Your task to perform on an android device: Add logitech g933 to the cart on target.com, then select checkout. Image 0: 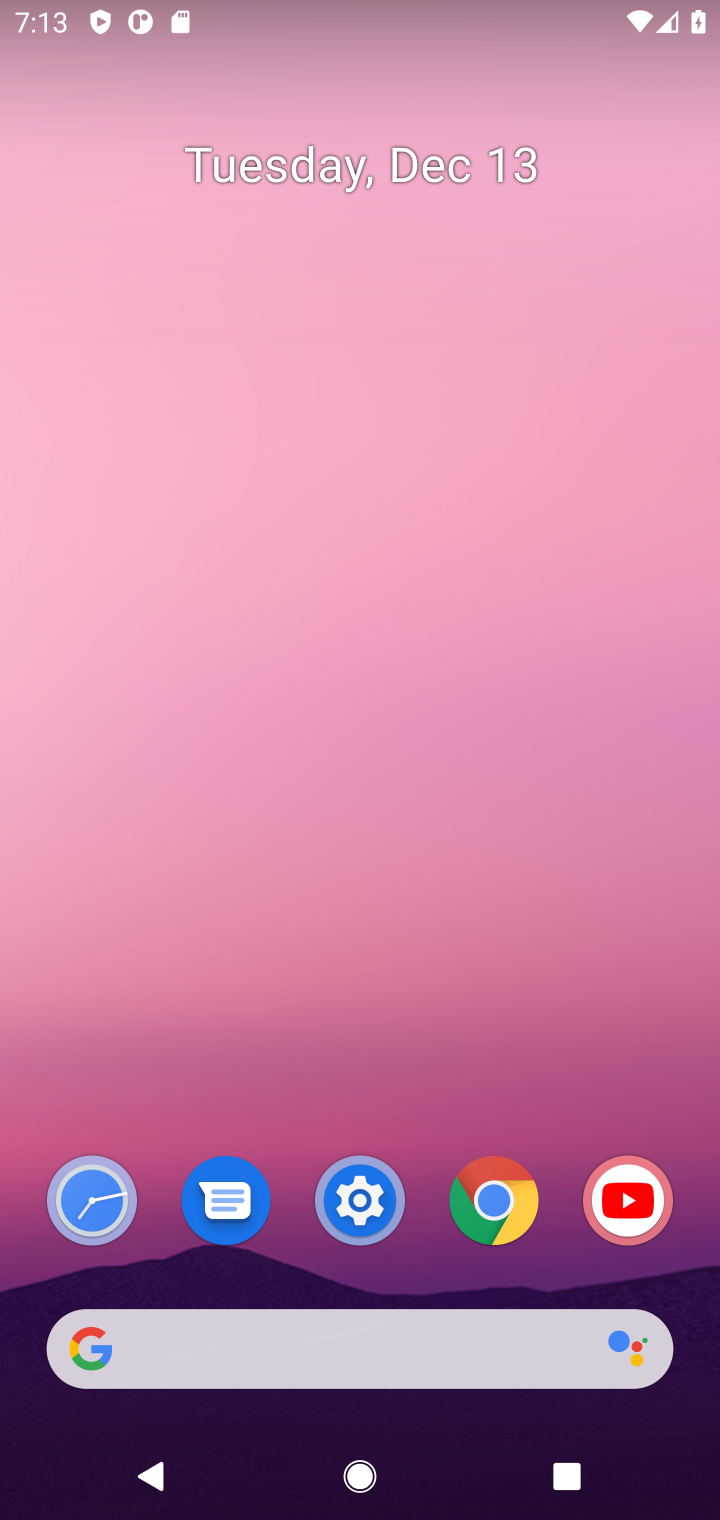
Step 0: click (319, 1345)
Your task to perform on an android device: Add logitech g933 to the cart on target.com, then select checkout. Image 1: 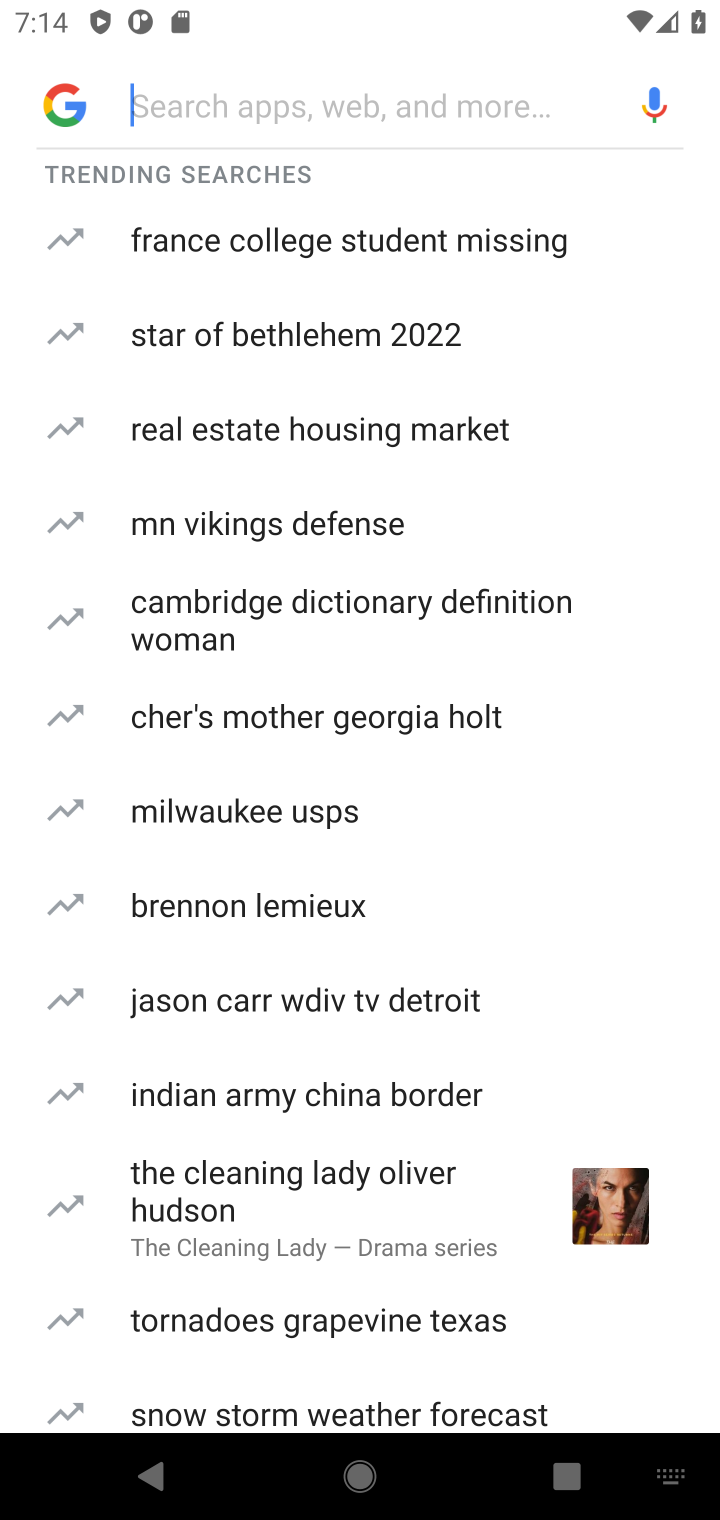
Step 1: type " target.com,"
Your task to perform on an android device: Add logitech g933 to the cart on target.com, then select checkout. Image 2: 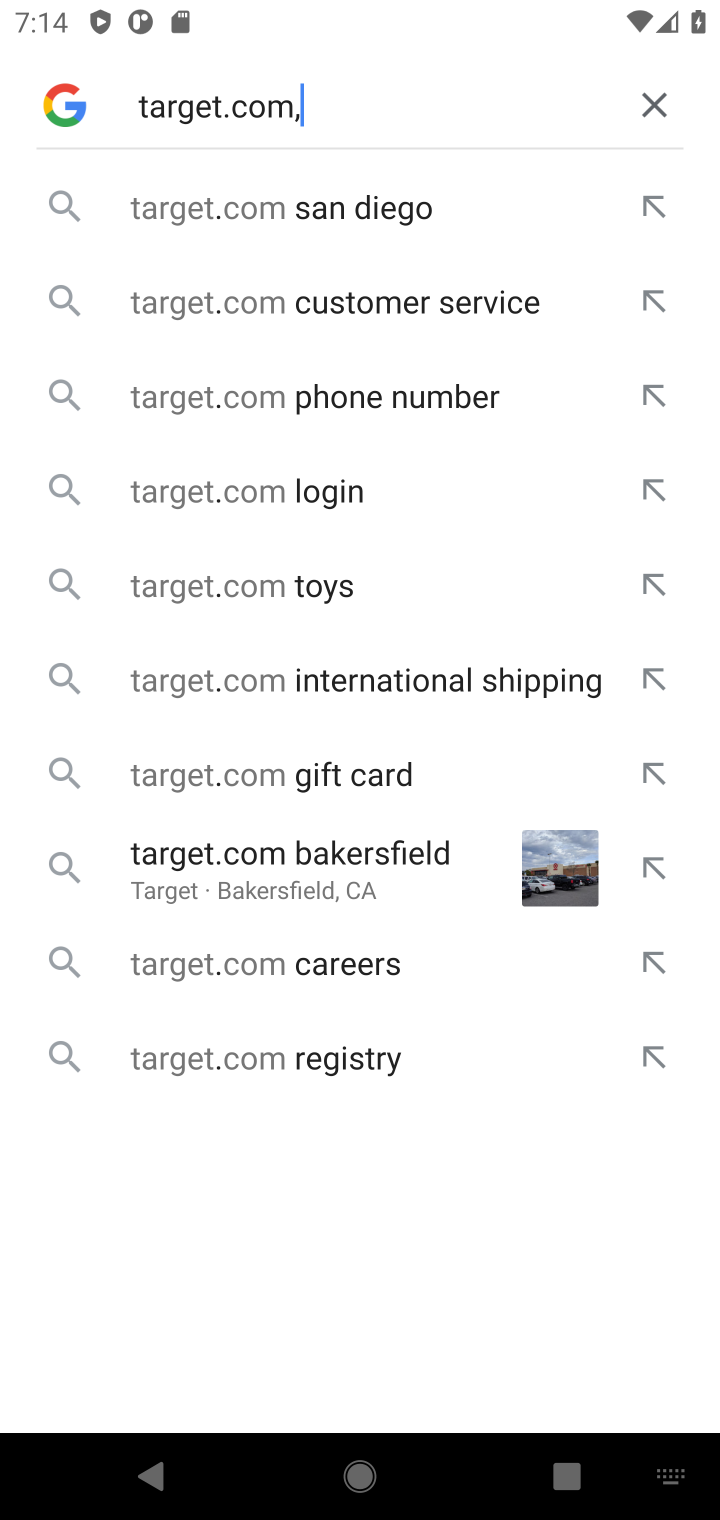
Step 2: click (659, 108)
Your task to perform on an android device: Add logitech g933 to the cart on target.com, then select checkout. Image 3: 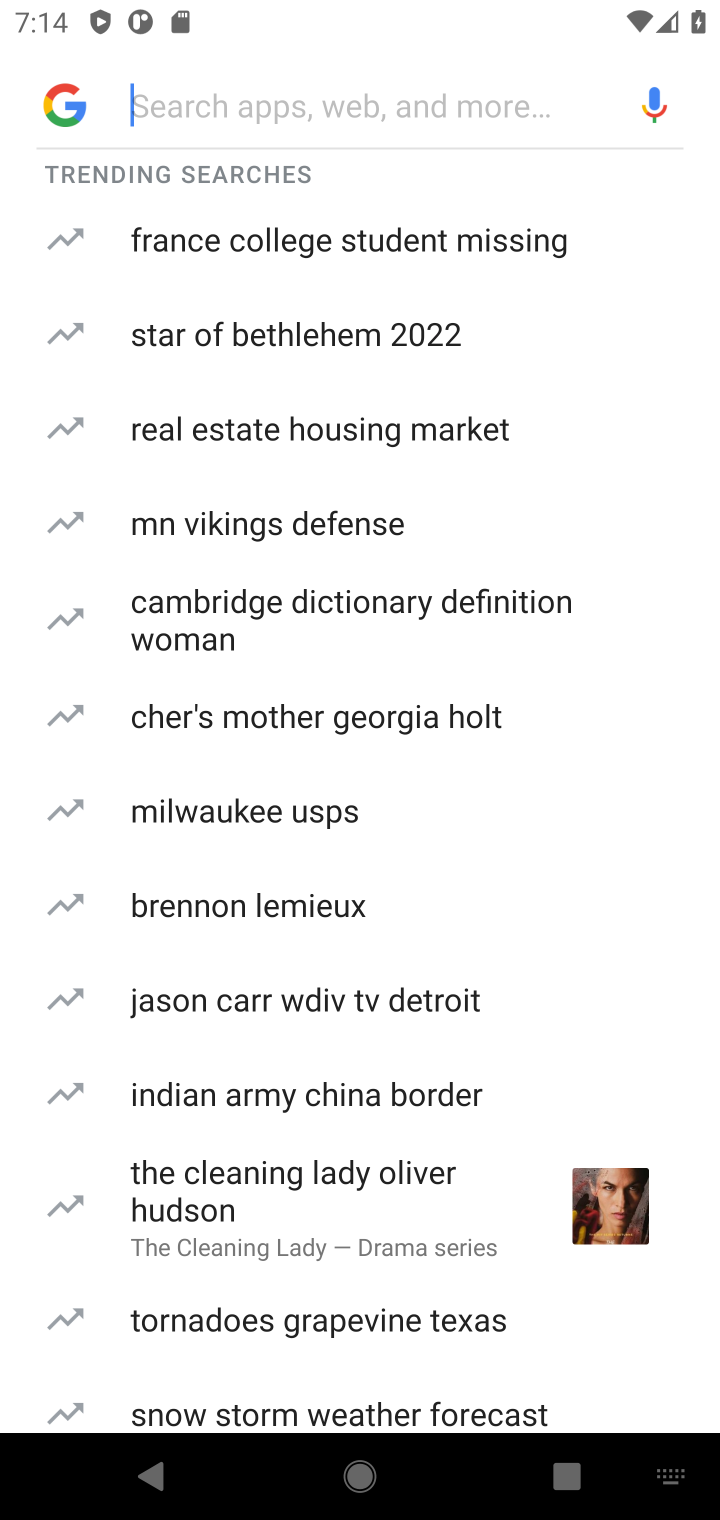
Step 3: type " target.com"
Your task to perform on an android device: Add logitech g933 to the cart on target.com, then select checkout. Image 4: 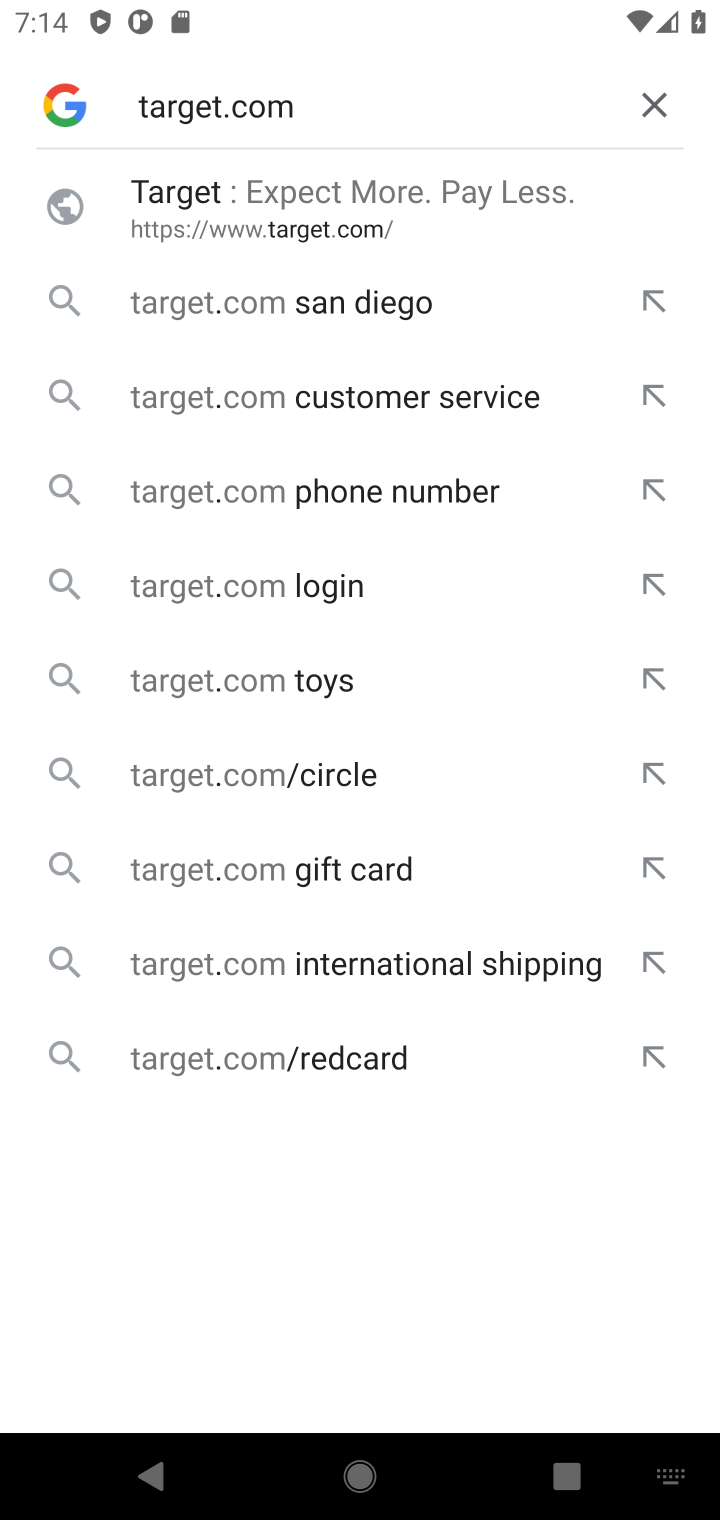
Step 4: click (326, 224)
Your task to perform on an android device: Add logitech g933 to the cart on target.com, then select checkout. Image 5: 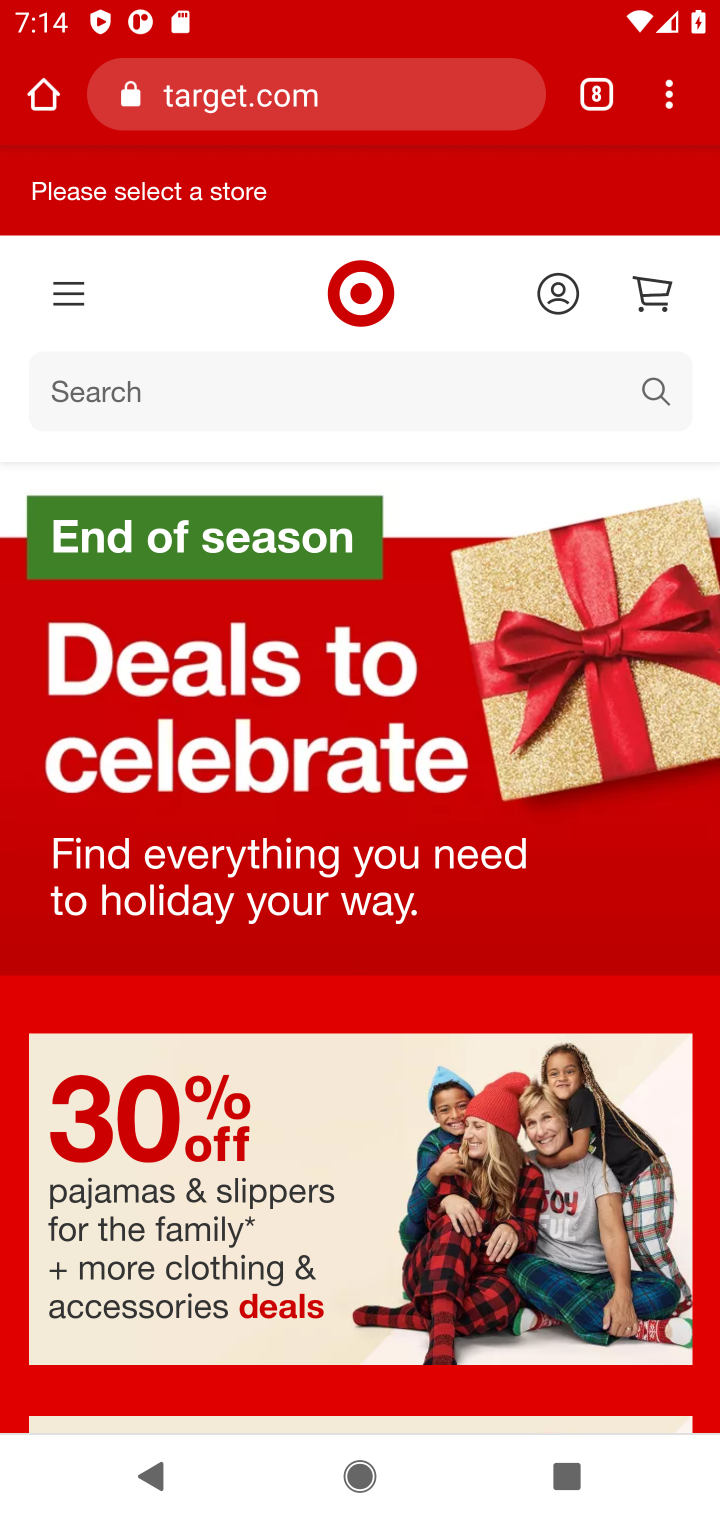
Step 5: click (298, 392)
Your task to perform on an android device: Add logitech g933 to the cart on target.com, then select checkout. Image 6: 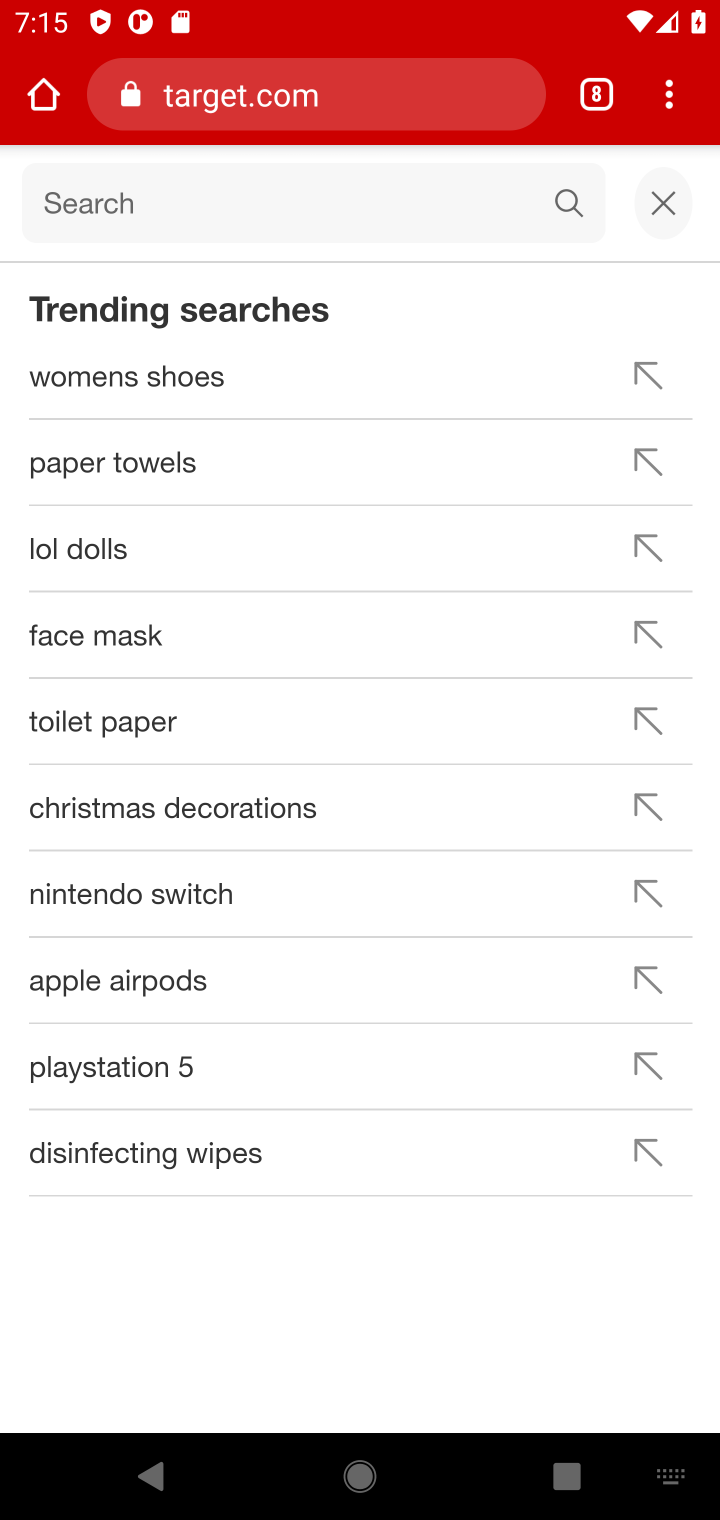
Step 6: type "logitech g933"
Your task to perform on an android device: Add logitech g933 to the cart on target.com, then select checkout. Image 7: 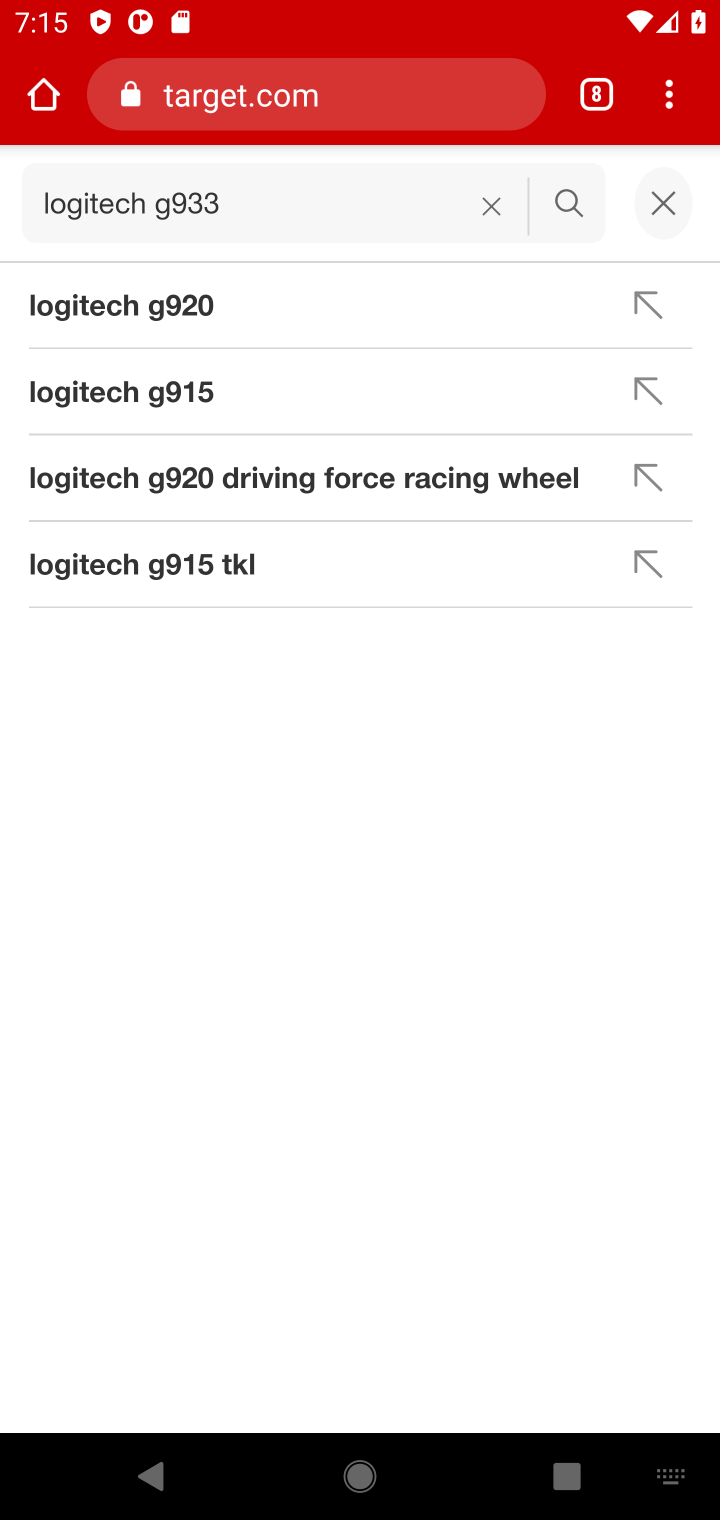
Step 7: click (573, 193)
Your task to perform on an android device: Add logitech g933 to the cart on target.com, then select checkout. Image 8: 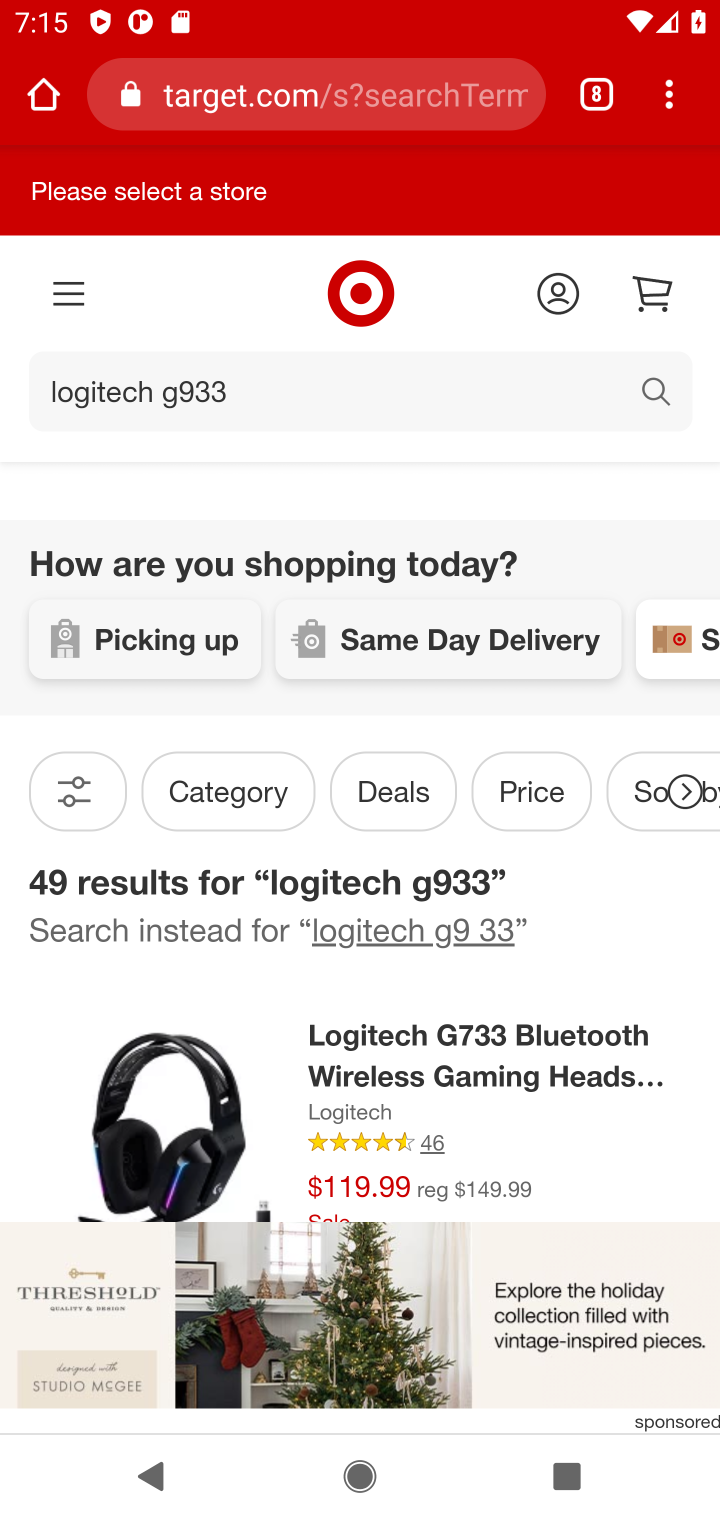
Step 8: drag from (455, 1016) to (455, 764)
Your task to perform on an android device: Add logitech g933 to the cart on target.com, then select checkout. Image 9: 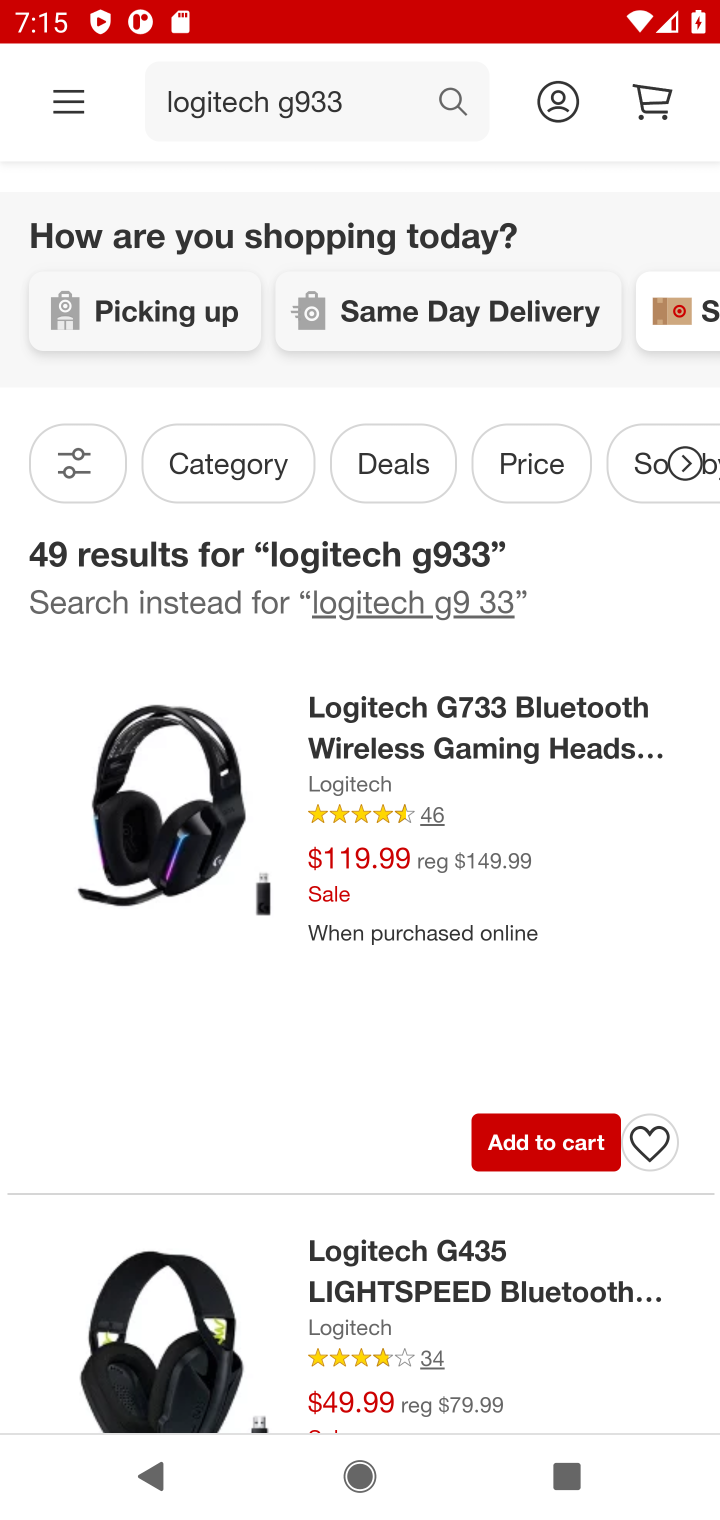
Step 9: click (513, 1141)
Your task to perform on an android device: Add logitech g933 to the cart on target.com, then select checkout. Image 10: 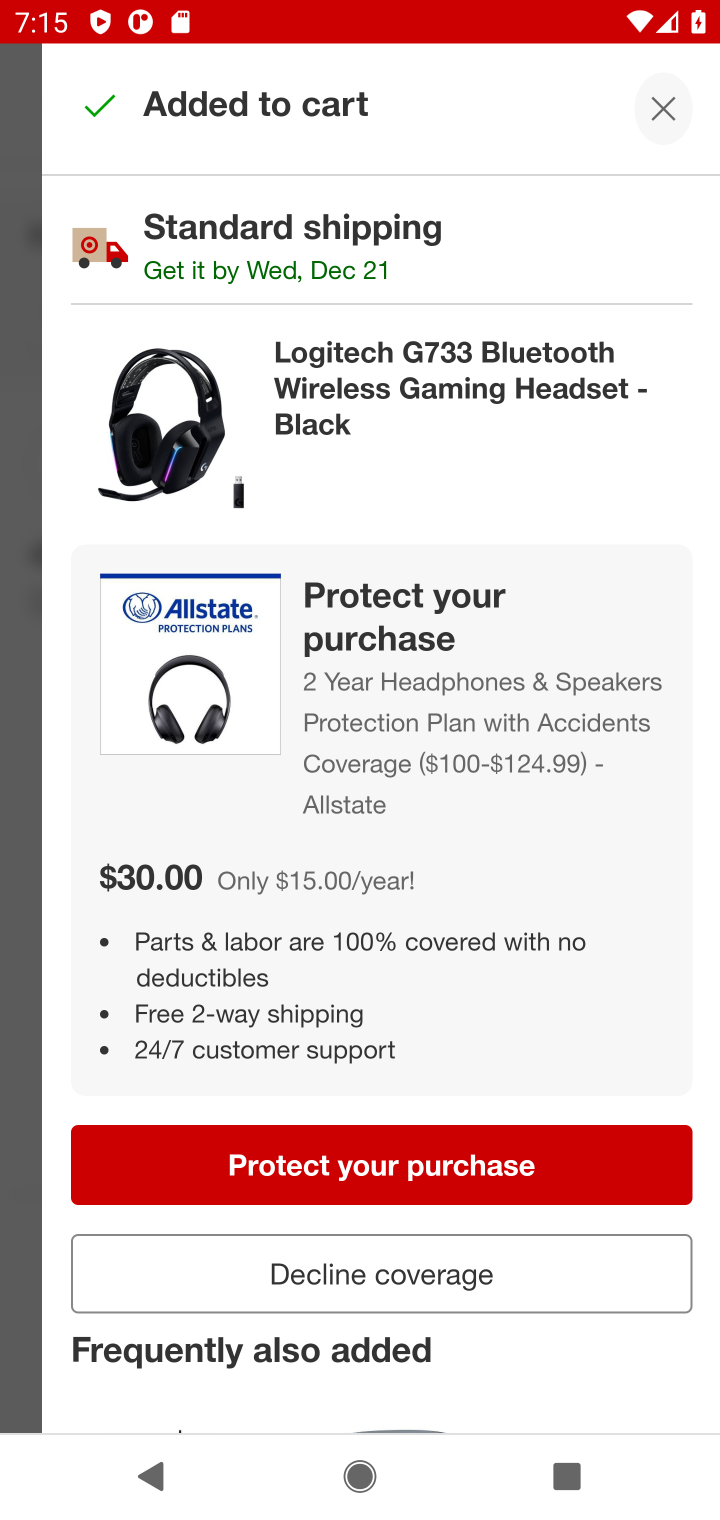
Step 10: click (386, 1276)
Your task to perform on an android device: Add logitech g933 to the cart on target.com, then select checkout. Image 11: 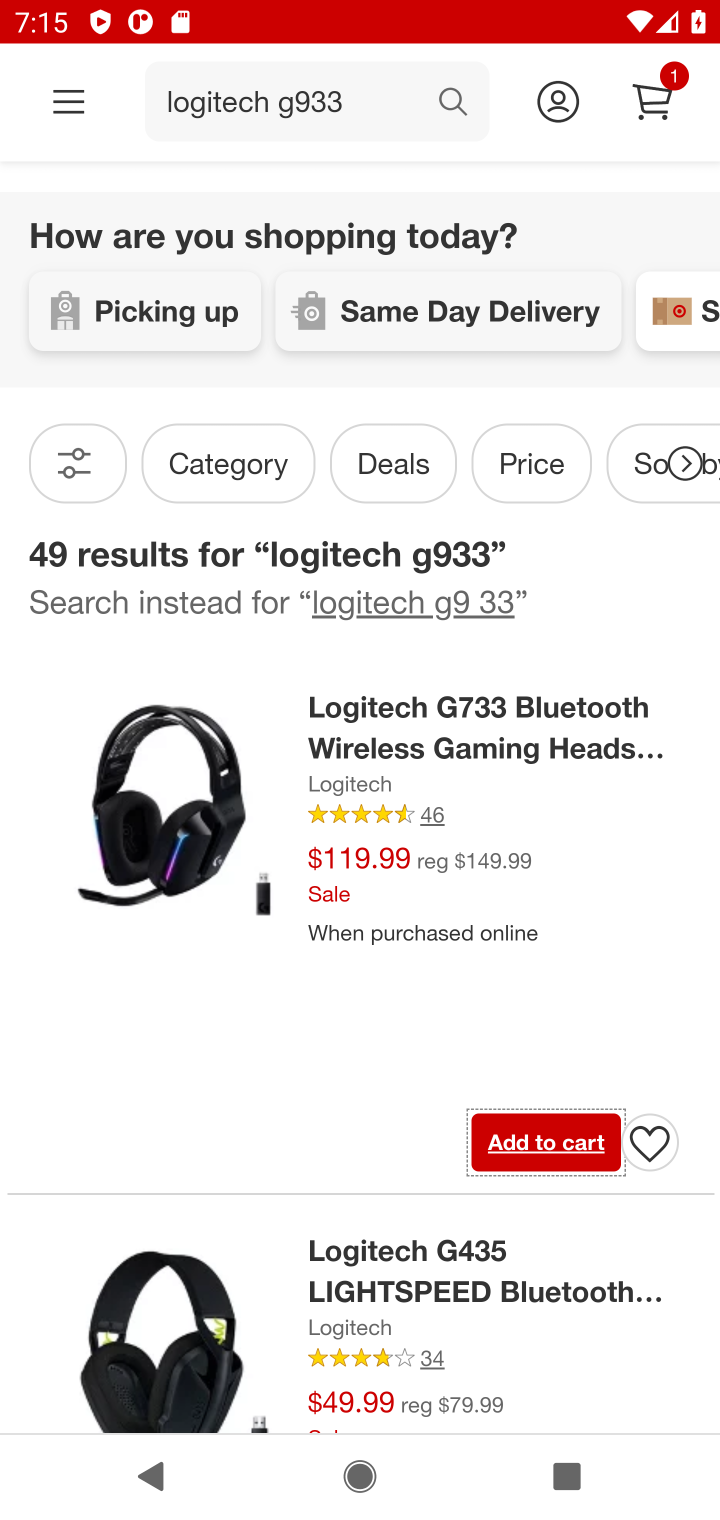
Step 11: click (649, 74)
Your task to perform on an android device: Add logitech g933 to the cart on target.com, then select checkout. Image 12: 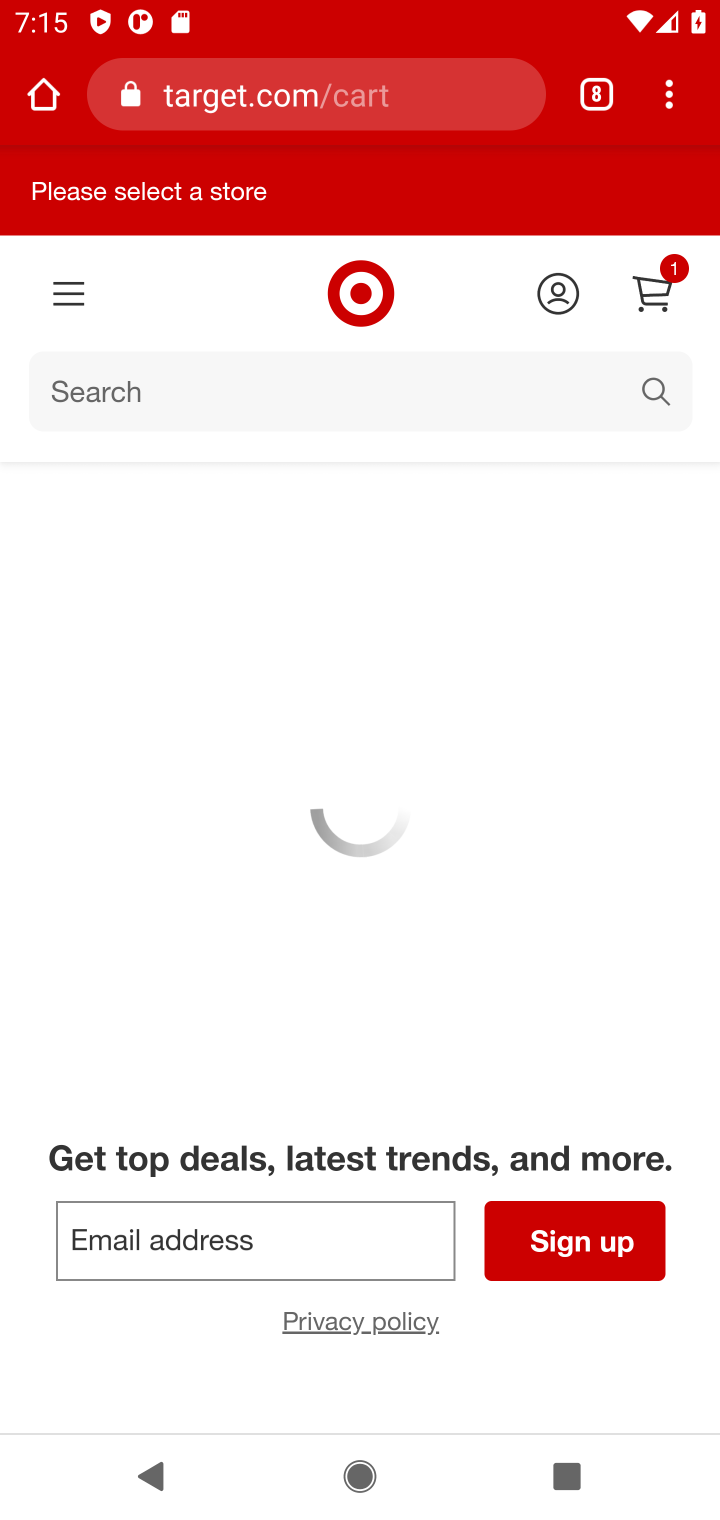
Step 12: drag from (578, 991) to (572, 733)
Your task to perform on an android device: Add logitech g933 to the cart on target.com, then select checkout. Image 13: 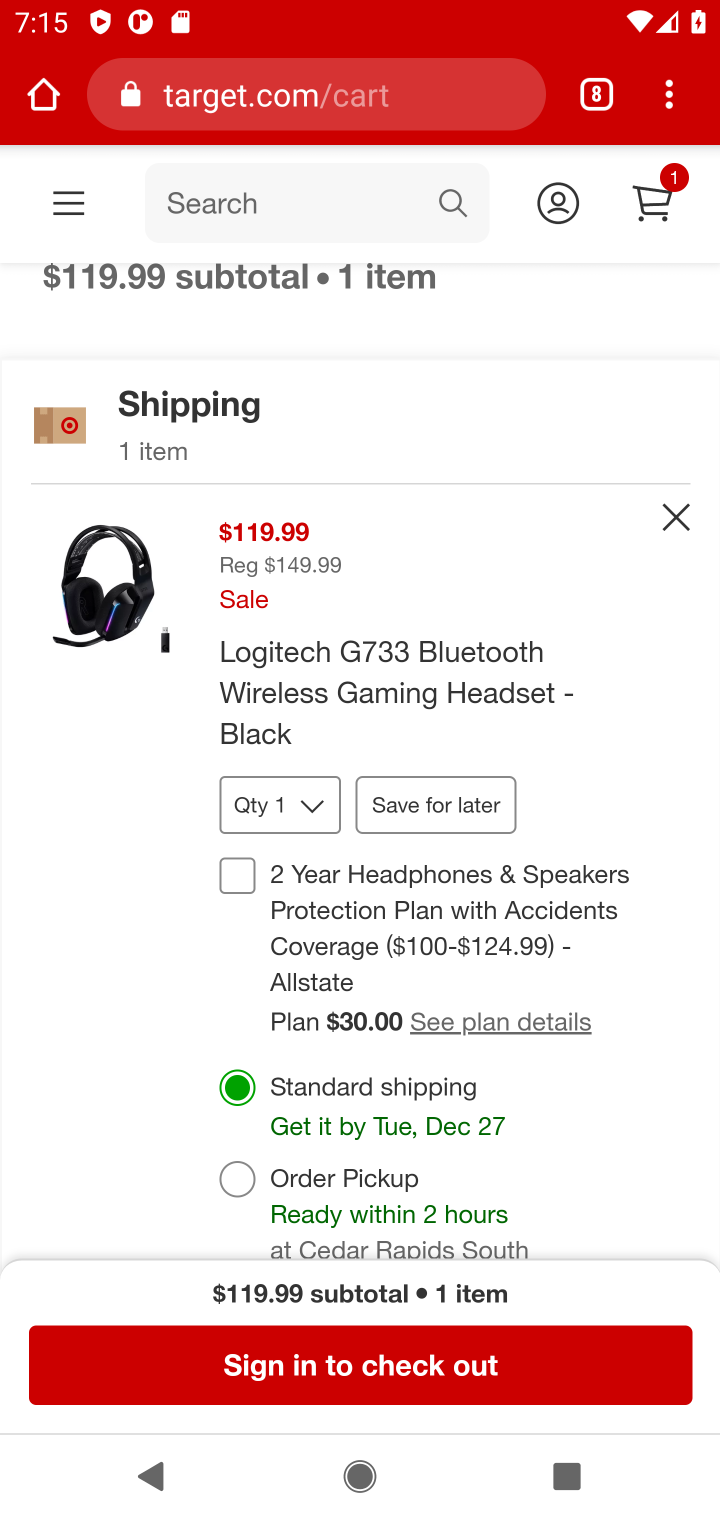
Step 13: click (385, 1366)
Your task to perform on an android device: Add logitech g933 to the cart on target.com, then select checkout. Image 14: 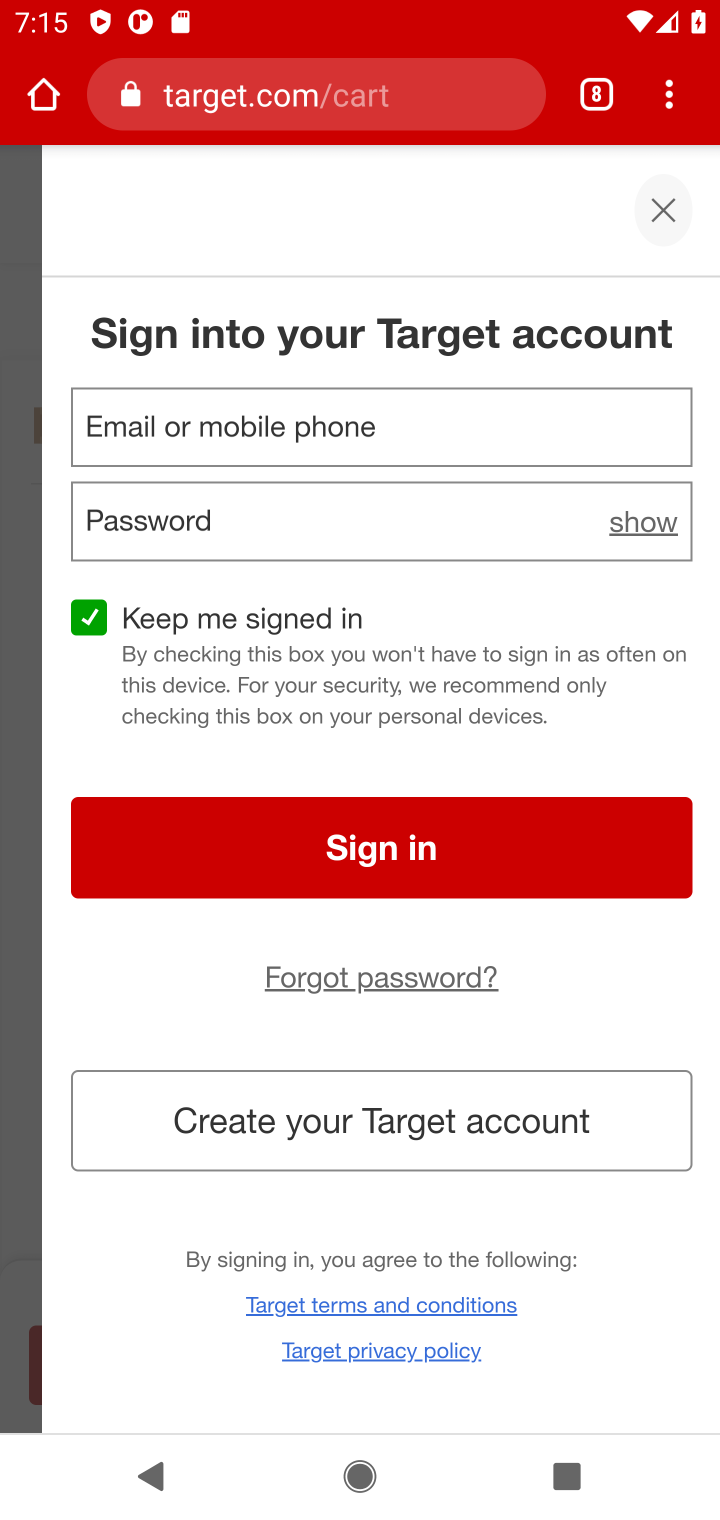
Step 14: task complete